Your task to perform on an android device: turn off javascript in the chrome app Image 0: 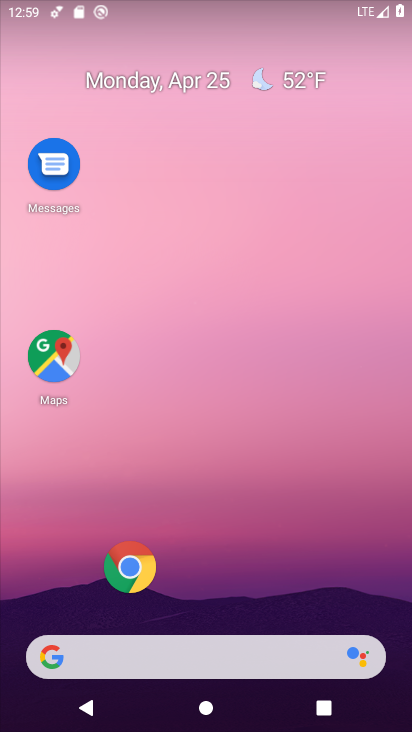
Step 0: drag from (296, 517) to (307, 68)
Your task to perform on an android device: turn off javascript in the chrome app Image 1: 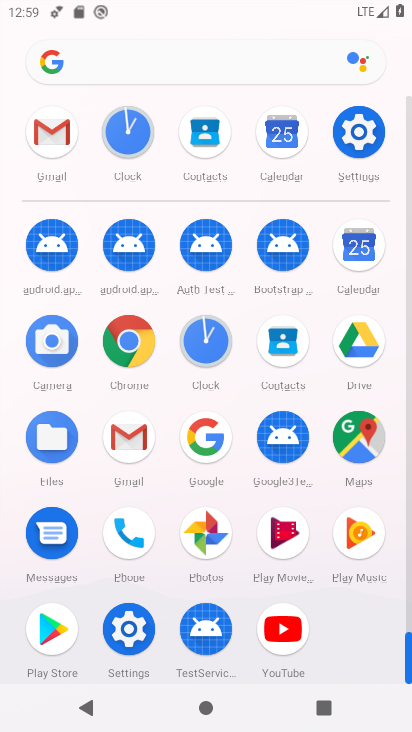
Step 1: click (115, 343)
Your task to perform on an android device: turn off javascript in the chrome app Image 2: 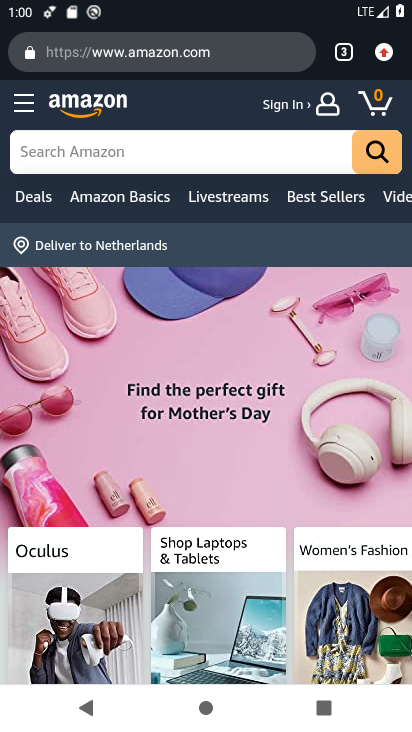
Step 2: click (374, 50)
Your task to perform on an android device: turn off javascript in the chrome app Image 3: 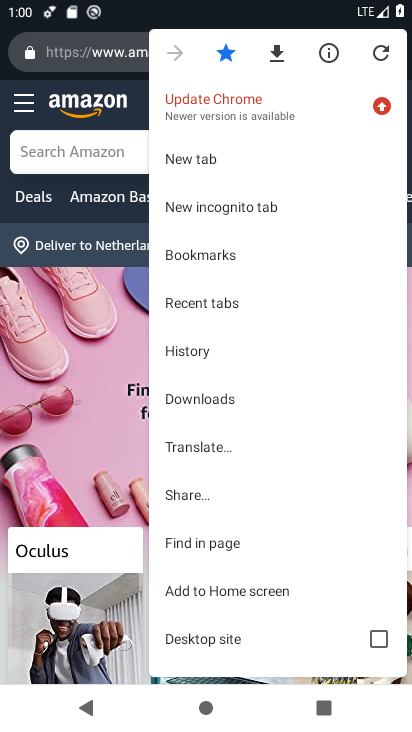
Step 3: drag from (178, 556) to (237, 408)
Your task to perform on an android device: turn off javascript in the chrome app Image 4: 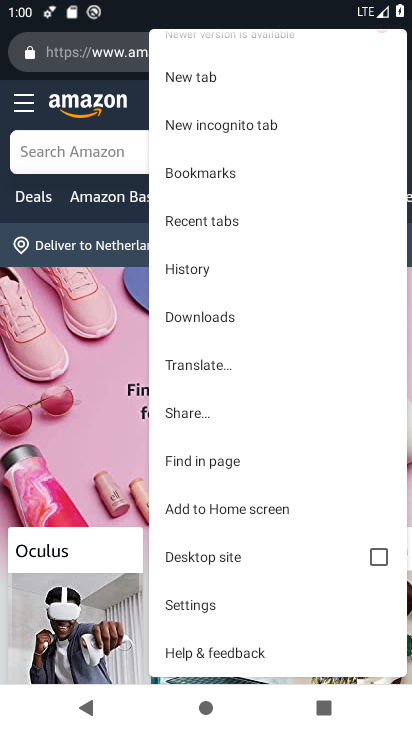
Step 4: click (211, 598)
Your task to perform on an android device: turn off javascript in the chrome app Image 5: 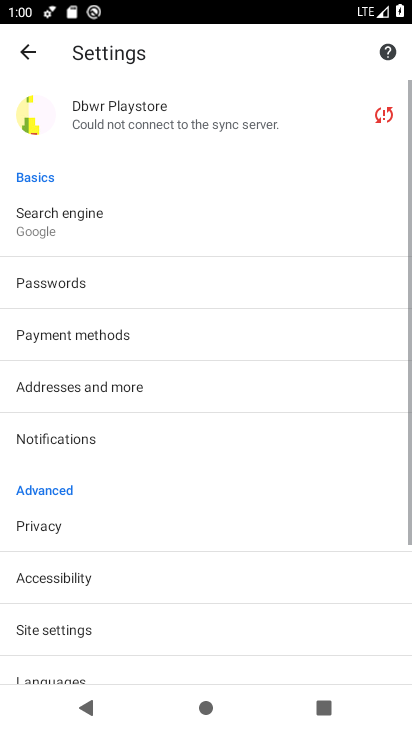
Step 5: click (337, 260)
Your task to perform on an android device: turn off javascript in the chrome app Image 6: 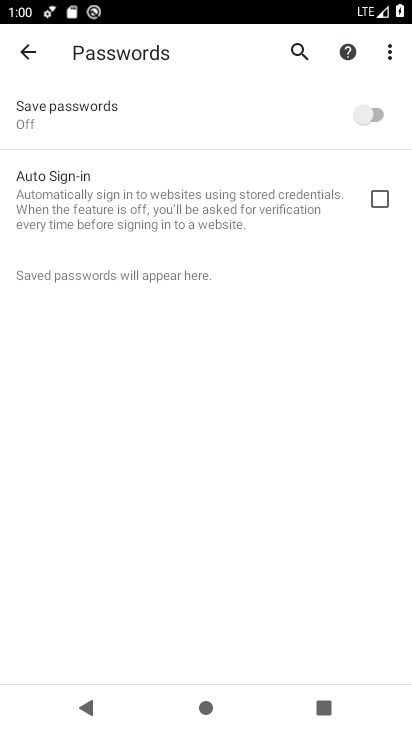
Step 6: click (47, 52)
Your task to perform on an android device: turn off javascript in the chrome app Image 7: 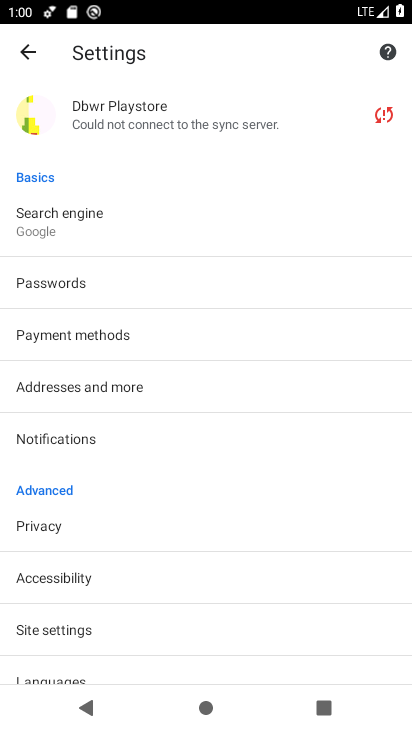
Step 7: click (77, 638)
Your task to perform on an android device: turn off javascript in the chrome app Image 8: 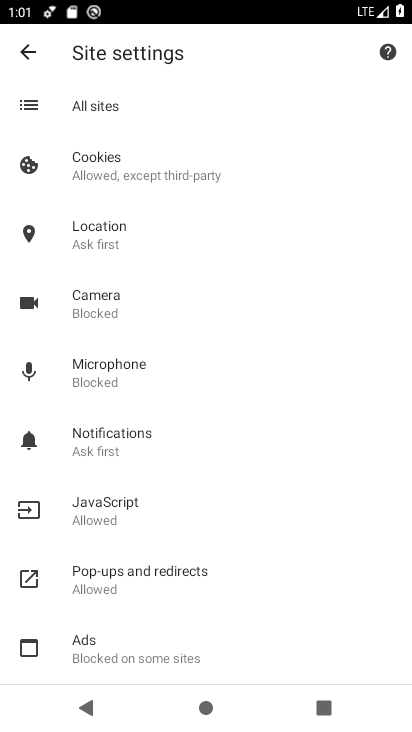
Step 8: click (143, 517)
Your task to perform on an android device: turn off javascript in the chrome app Image 9: 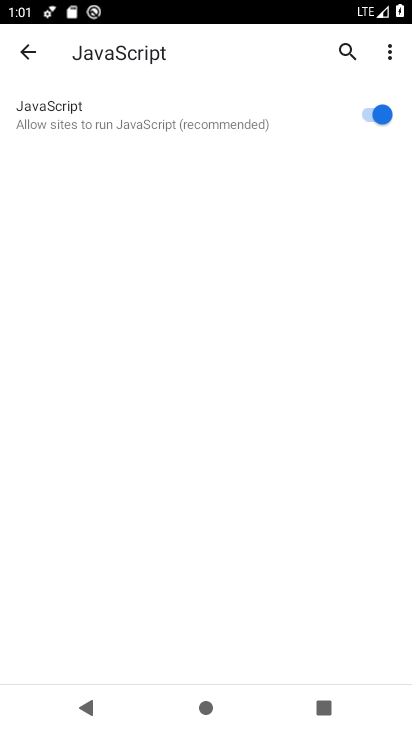
Step 9: click (374, 109)
Your task to perform on an android device: turn off javascript in the chrome app Image 10: 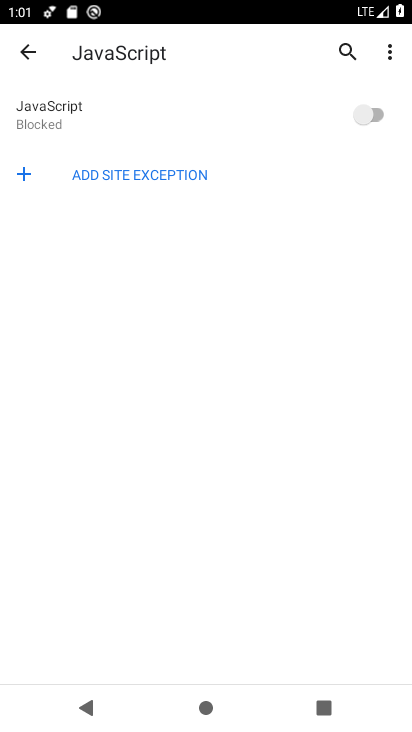
Step 10: task complete